Your task to perform on an android device: turn on location history Image 0: 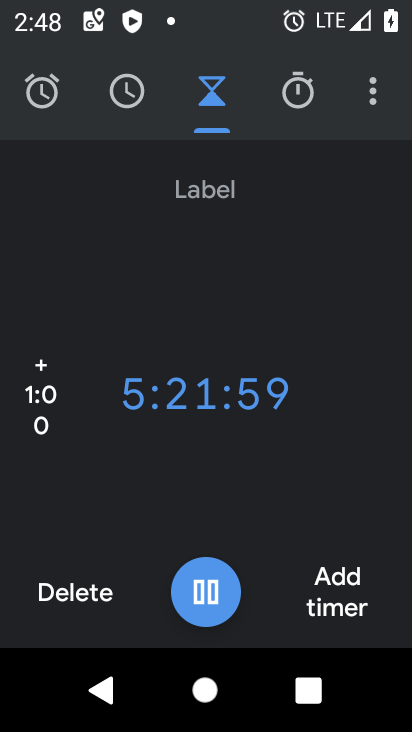
Step 0: press home button
Your task to perform on an android device: turn on location history Image 1: 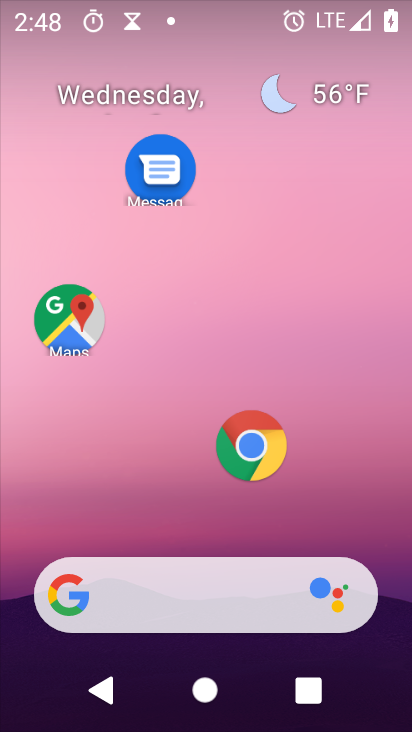
Step 1: drag from (183, 507) to (235, 96)
Your task to perform on an android device: turn on location history Image 2: 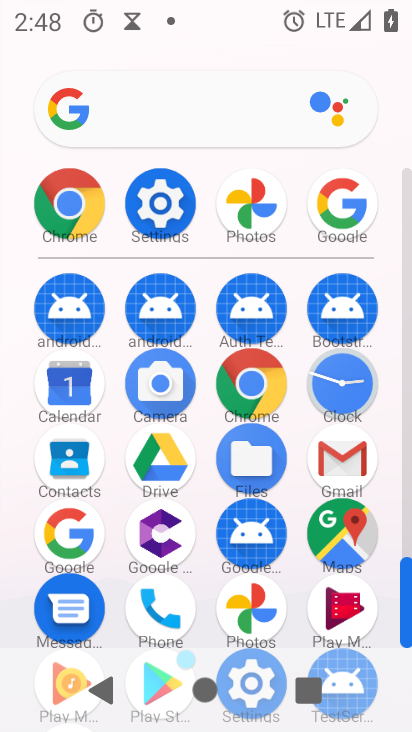
Step 2: drag from (194, 262) to (201, 135)
Your task to perform on an android device: turn on location history Image 3: 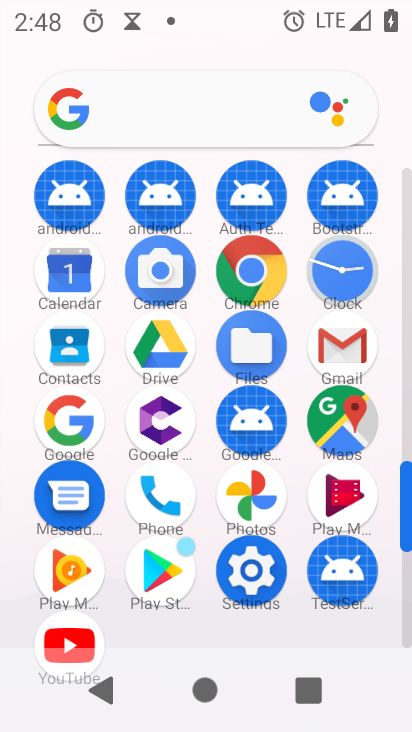
Step 3: click (249, 557)
Your task to perform on an android device: turn on location history Image 4: 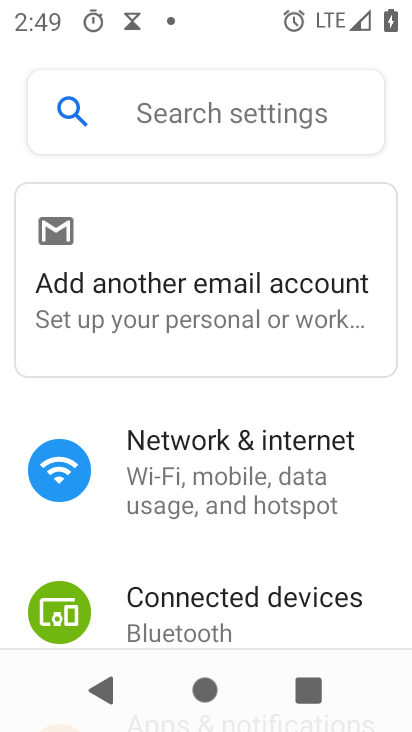
Step 4: drag from (166, 570) to (171, 320)
Your task to perform on an android device: turn on location history Image 5: 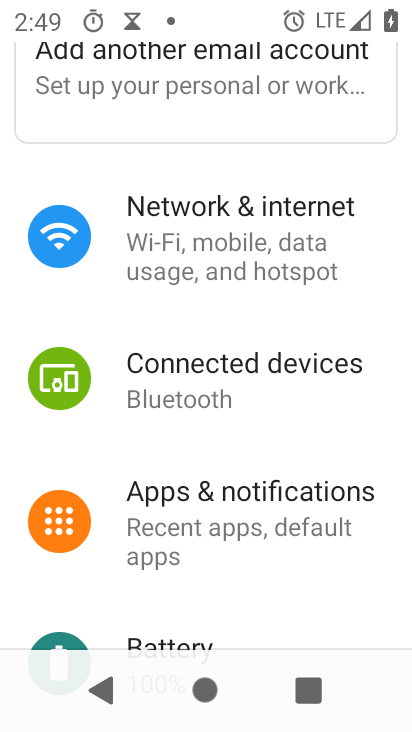
Step 5: drag from (177, 584) to (167, 301)
Your task to perform on an android device: turn on location history Image 6: 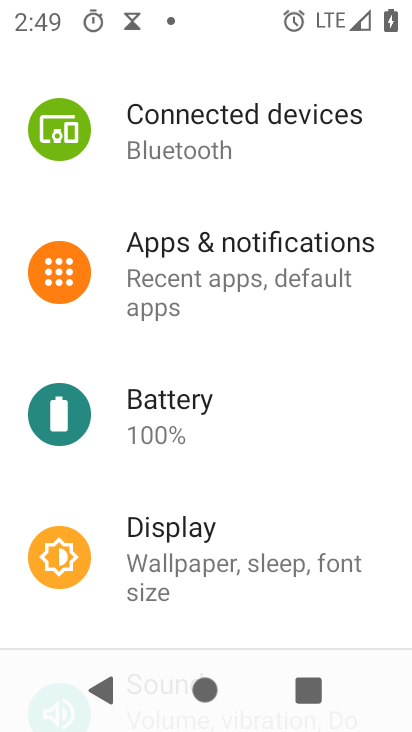
Step 6: drag from (183, 546) to (193, 240)
Your task to perform on an android device: turn on location history Image 7: 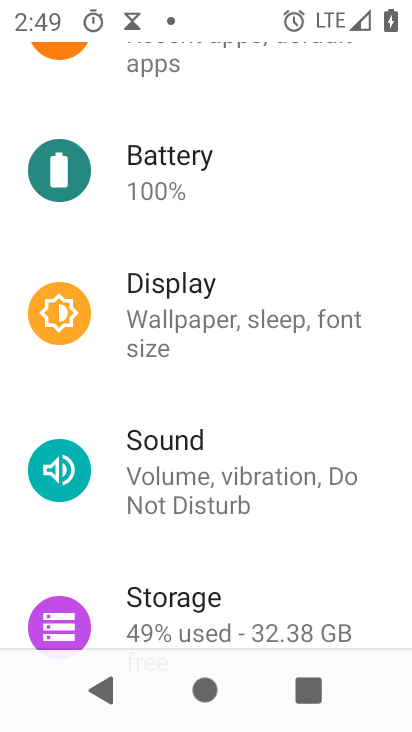
Step 7: drag from (193, 515) to (238, 491)
Your task to perform on an android device: turn on location history Image 8: 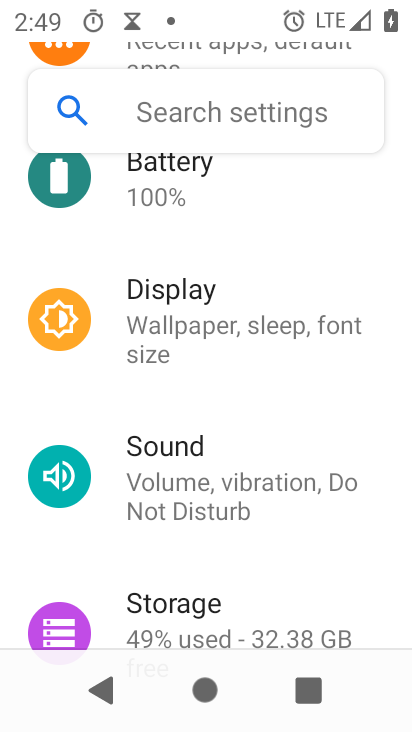
Step 8: drag from (202, 561) to (216, 112)
Your task to perform on an android device: turn on location history Image 9: 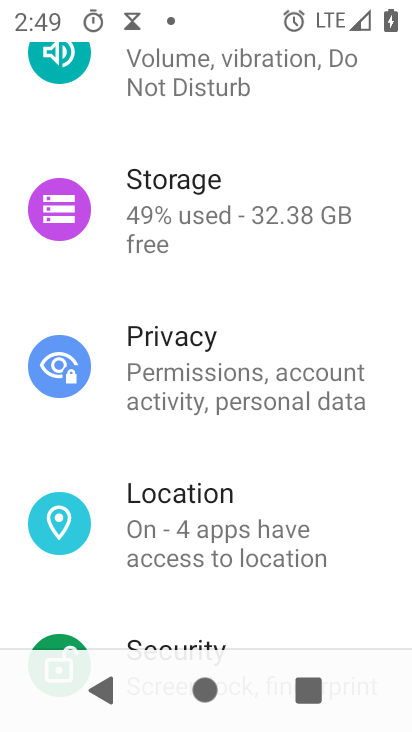
Step 9: click (187, 524)
Your task to perform on an android device: turn on location history Image 10: 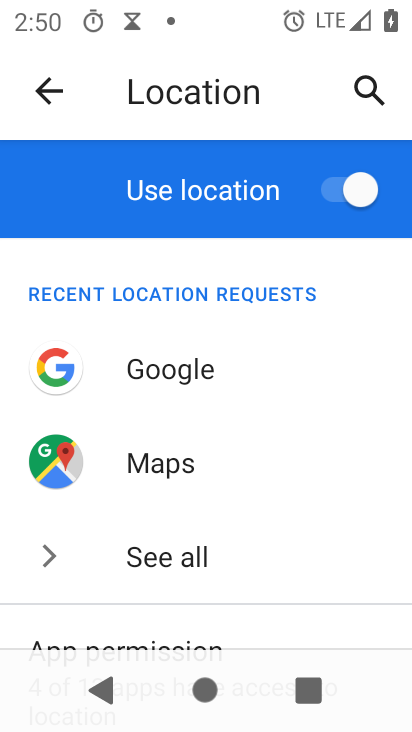
Step 10: drag from (77, 548) to (126, 104)
Your task to perform on an android device: turn on location history Image 11: 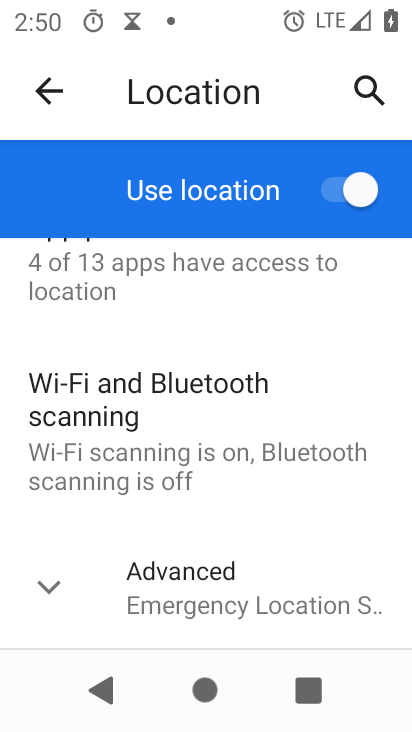
Step 11: drag from (219, 551) to (190, 312)
Your task to perform on an android device: turn on location history Image 12: 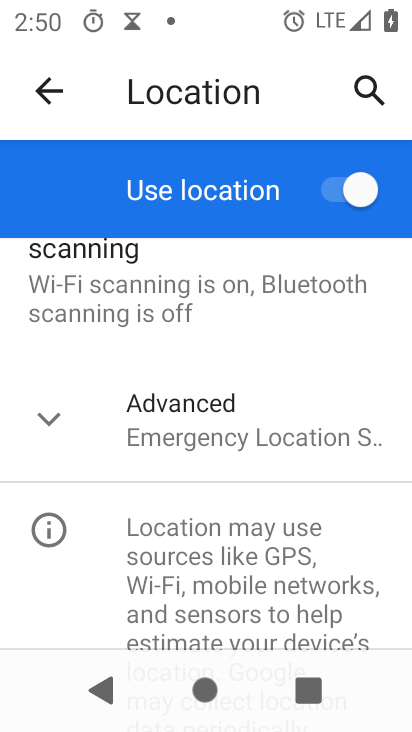
Step 12: click (191, 422)
Your task to perform on an android device: turn on location history Image 13: 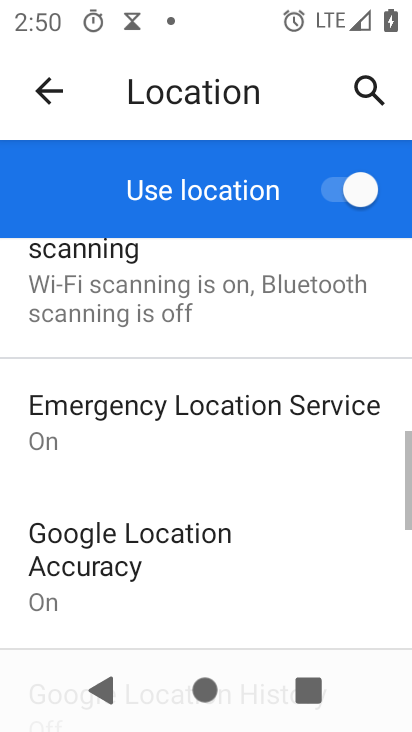
Step 13: drag from (191, 458) to (170, 277)
Your task to perform on an android device: turn on location history Image 14: 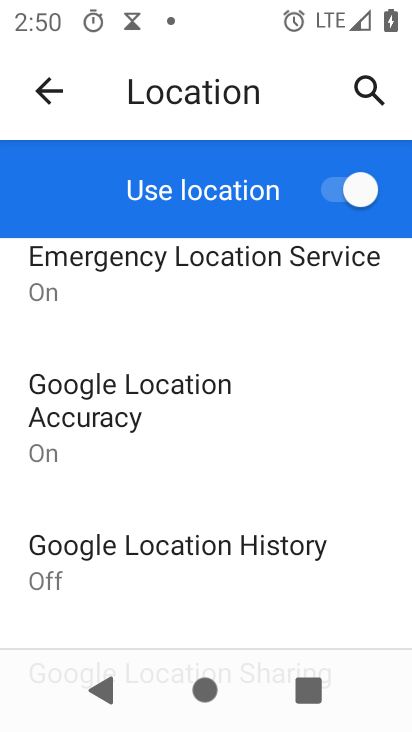
Step 14: click (208, 546)
Your task to perform on an android device: turn on location history Image 15: 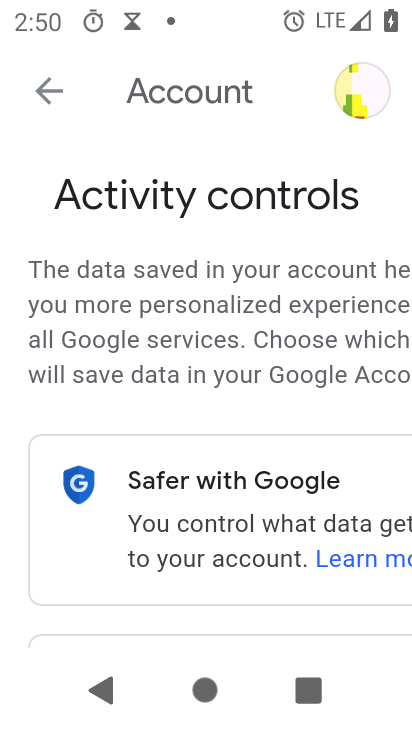
Step 15: drag from (274, 510) to (263, 51)
Your task to perform on an android device: turn on location history Image 16: 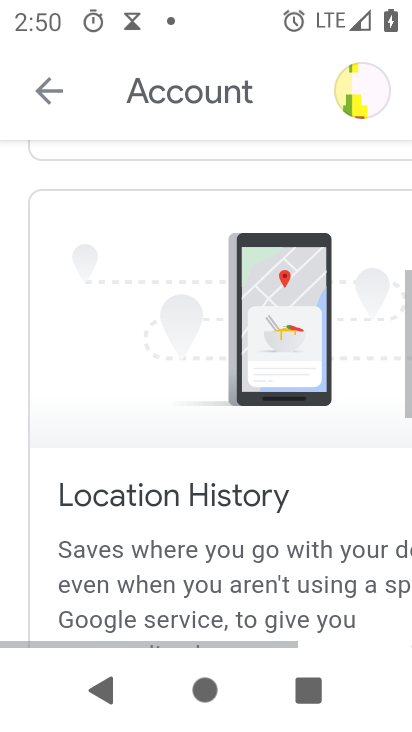
Step 16: drag from (290, 489) to (231, 60)
Your task to perform on an android device: turn on location history Image 17: 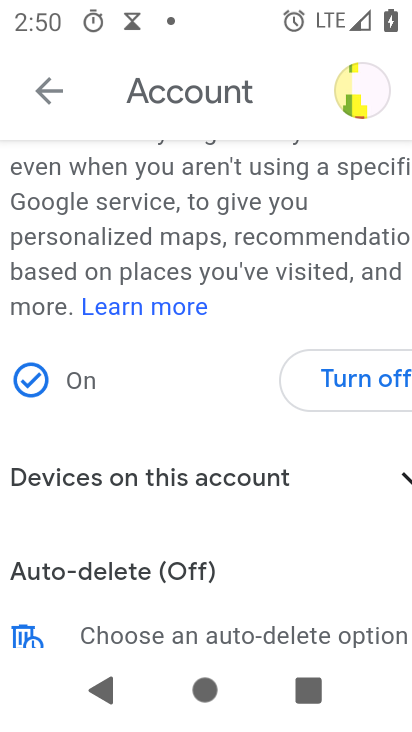
Step 17: click (369, 390)
Your task to perform on an android device: turn on location history Image 18: 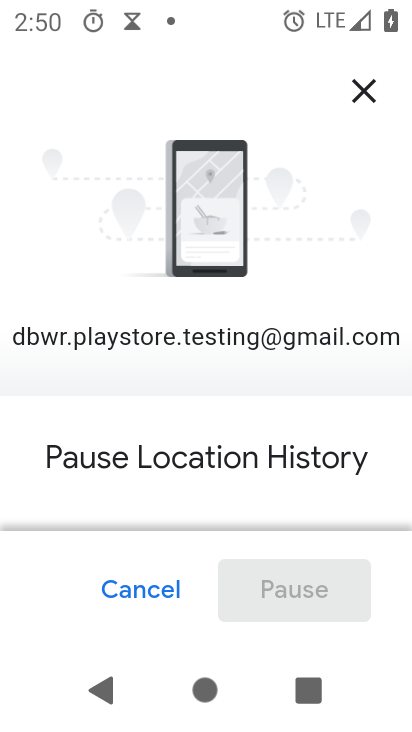
Step 18: drag from (310, 481) to (266, 2)
Your task to perform on an android device: turn on location history Image 19: 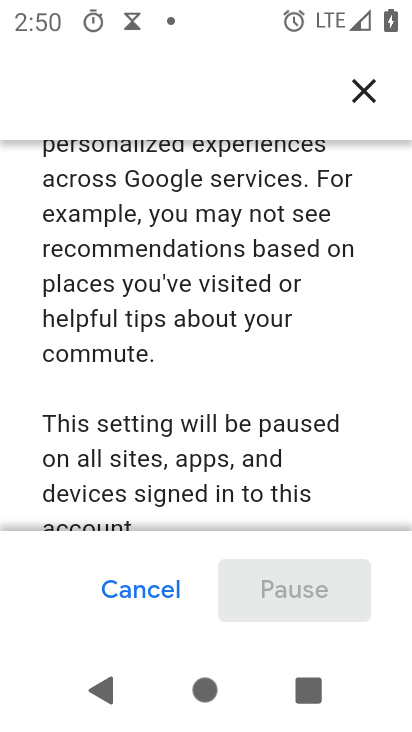
Step 19: drag from (283, 443) to (281, 3)
Your task to perform on an android device: turn on location history Image 20: 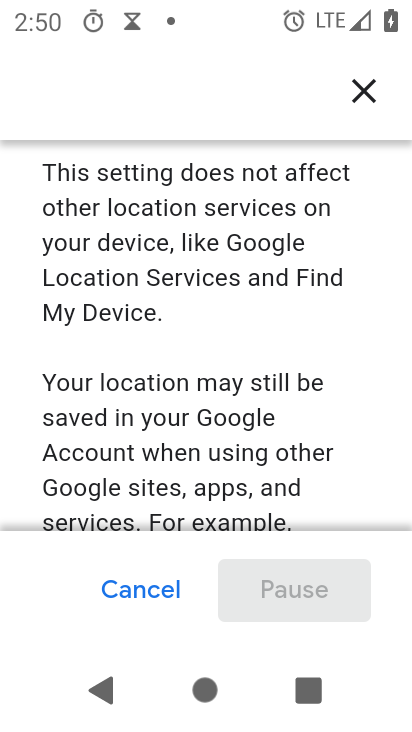
Step 20: drag from (285, 471) to (259, 7)
Your task to perform on an android device: turn on location history Image 21: 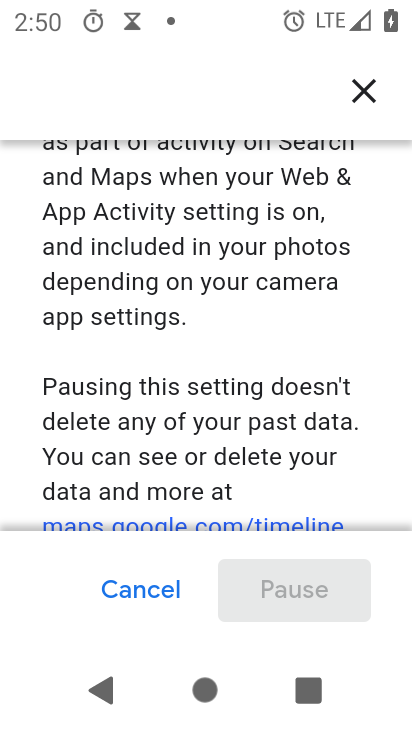
Step 21: drag from (278, 416) to (235, 21)
Your task to perform on an android device: turn on location history Image 22: 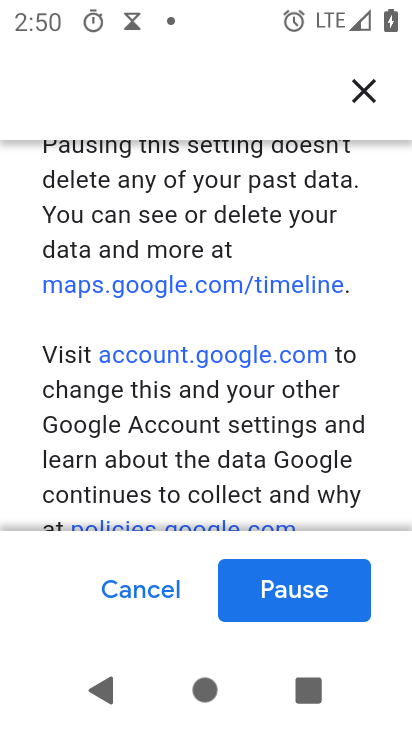
Step 22: click (298, 583)
Your task to perform on an android device: turn on location history Image 23: 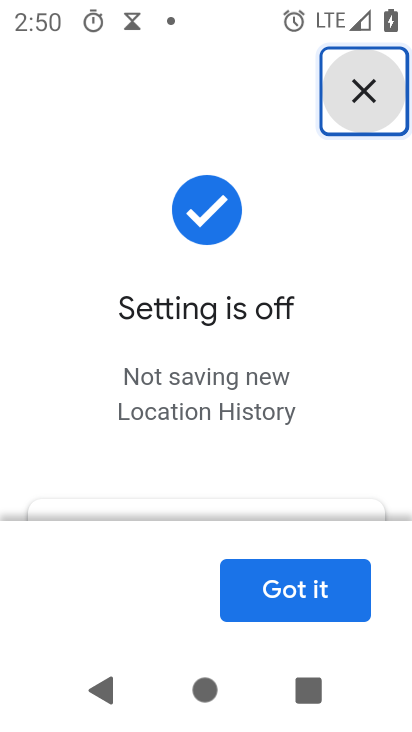
Step 23: click (299, 583)
Your task to perform on an android device: turn on location history Image 24: 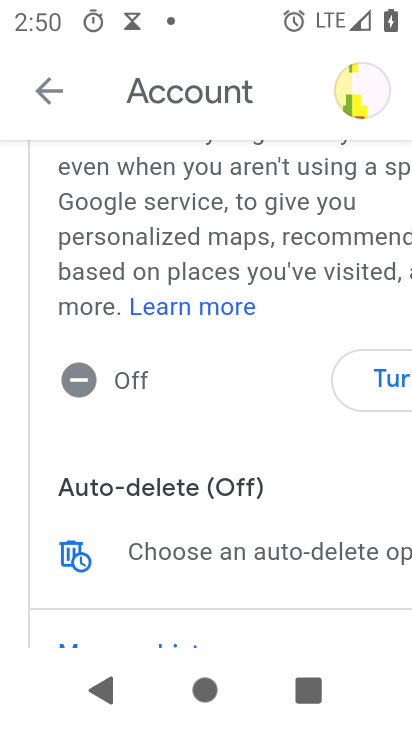
Step 24: task complete